Your task to perform on an android device: check the backup settings in the google photos Image 0: 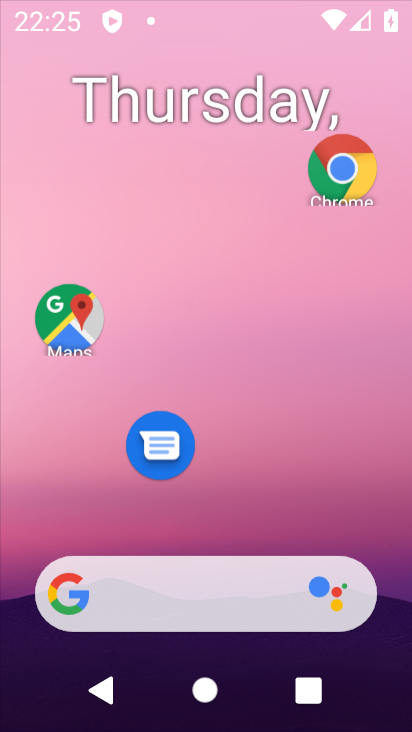
Step 0: click (301, 45)
Your task to perform on an android device: check the backup settings in the google photos Image 1: 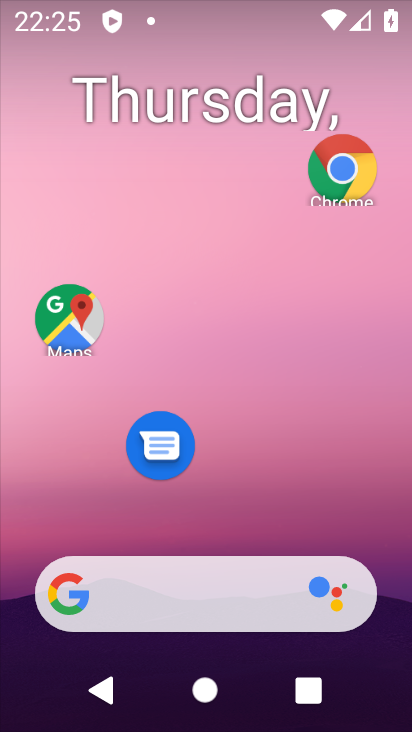
Step 1: drag from (229, 528) to (230, 65)
Your task to perform on an android device: check the backup settings in the google photos Image 2: 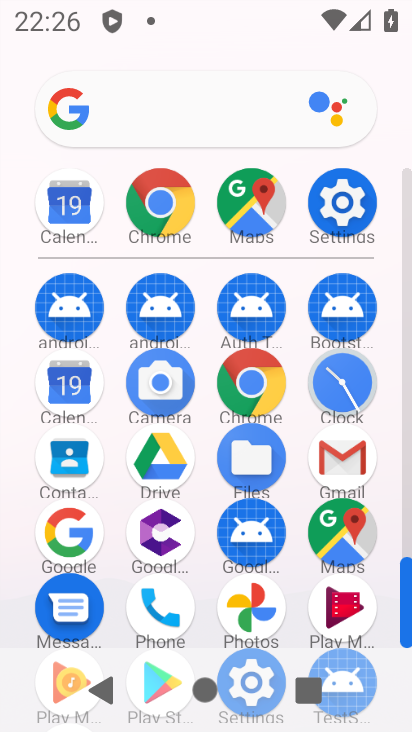
Step 2: click (252, 593)
Your task to perform on an android device: check the backup settings in the google photos Image 3: 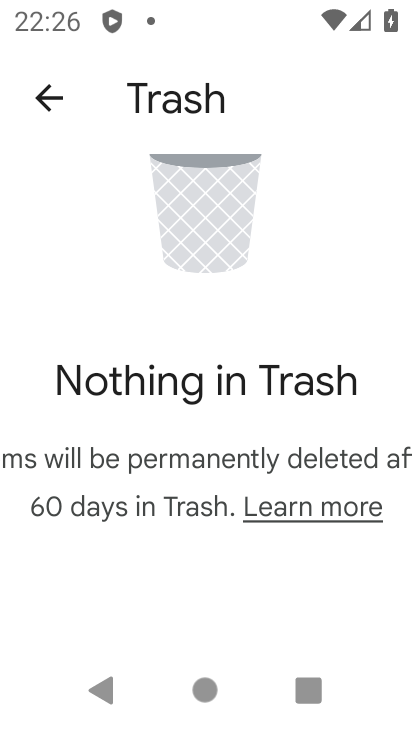
Step 3: click (49, 81)
Your task to perform on an android device: check the backup settings in the google photos Image 4: 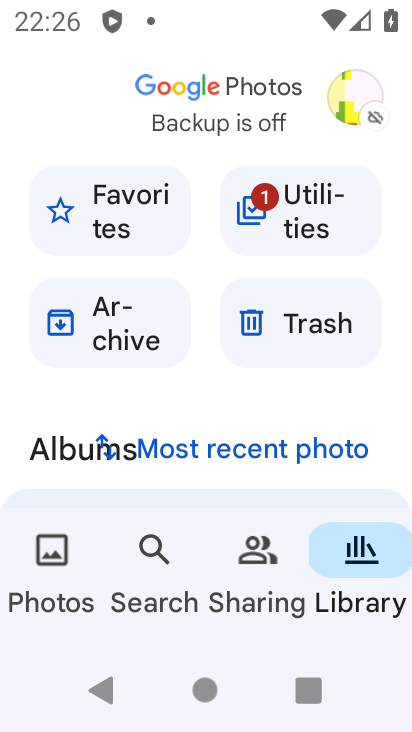
Step 4: click (347, 89)
Your task to perform on an android device: check the backup settings in the google photos Image 5: 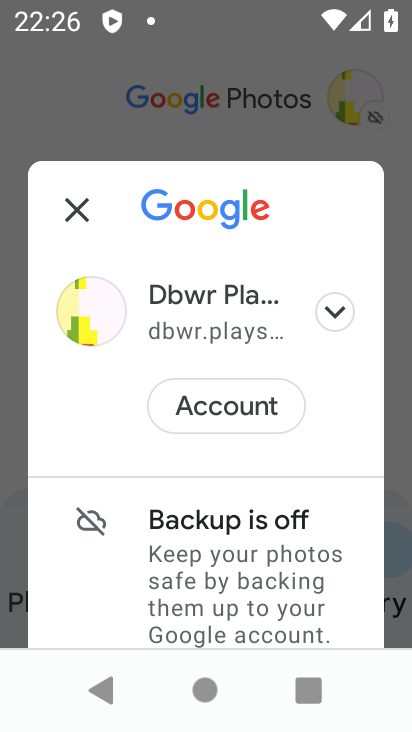
Step 5: drag from (225, 523) to (228, 59)
Your task to perform on an android device: check the backup settings in the google photos Image 6: 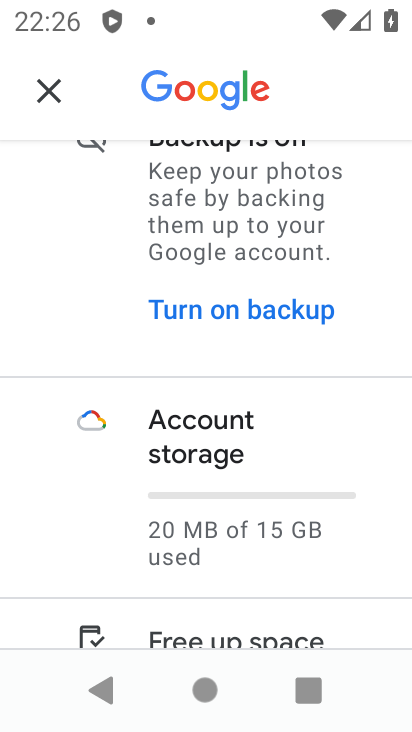
Step 6: drag from (253, 617) to (268, 182)
Your task to perform on an android device: check the backup settings in the google photos Image 7: 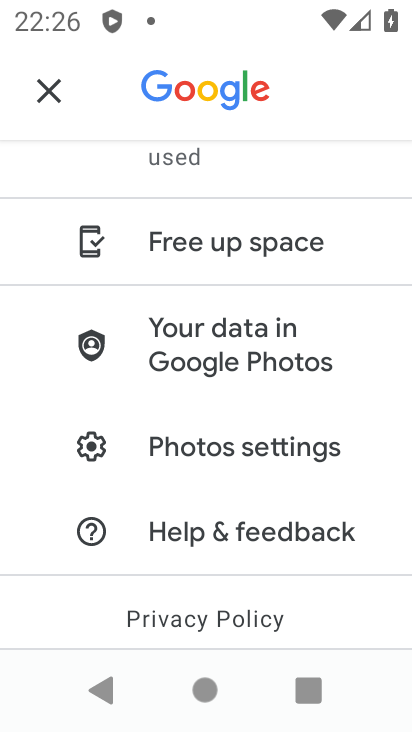
Step 7: click (236, 438)
Your task to perform on an android device: check the backup settings in the google photos Image 8: 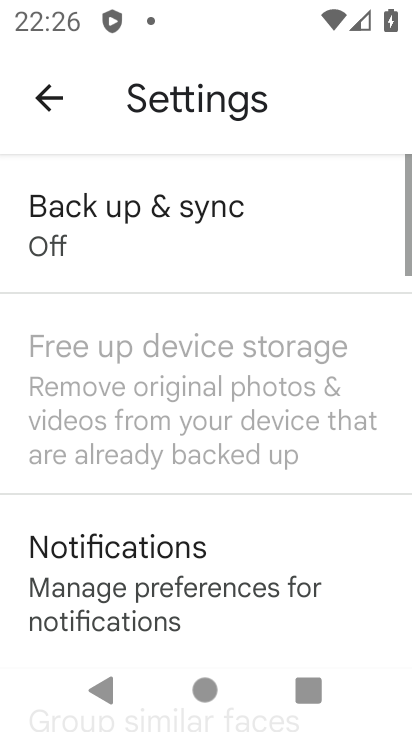
Step 8: drag from (247, 520) to (326, 112)
Your task to perform on an android device: check the backup settings in the google photos Image 9: 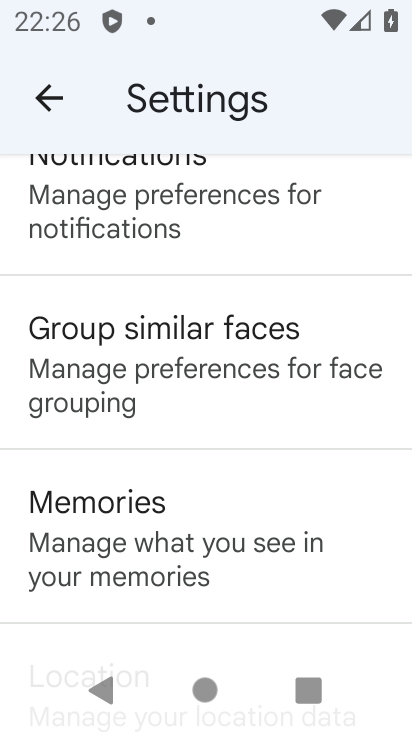
Step 9: drag from (136, 189) to (226, 699)
Your task to perform on an android device: check the backup settings in the google photos Image 10: 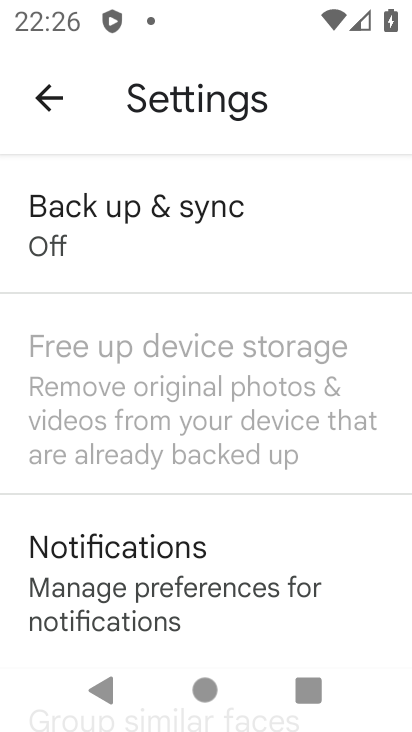
Step 10: click (189, 225)
Your task to perform on an android device: check the backup settings in the google photos Image 11: 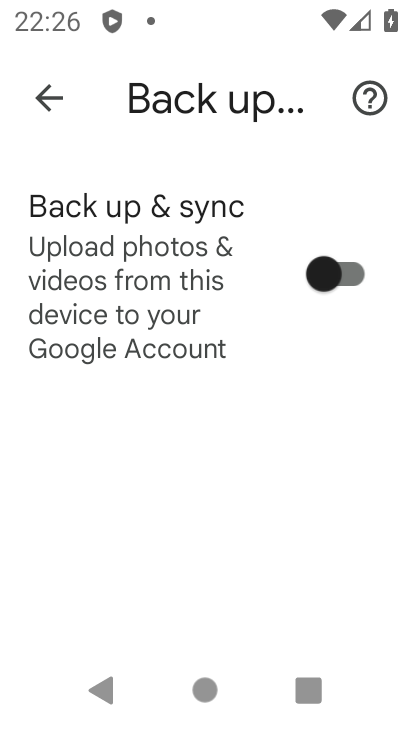
Step 11: drag from (212, 566) to (265, 175)
Your task to perform on an android device: check the backup settings in the google photos Image 12: 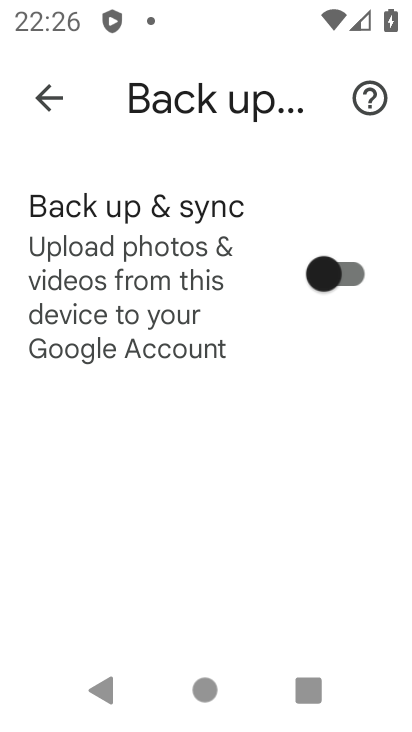
Step 12: click (330, 260)
Your task to perform on an android device: check the backup settings in the google photos Image 13: 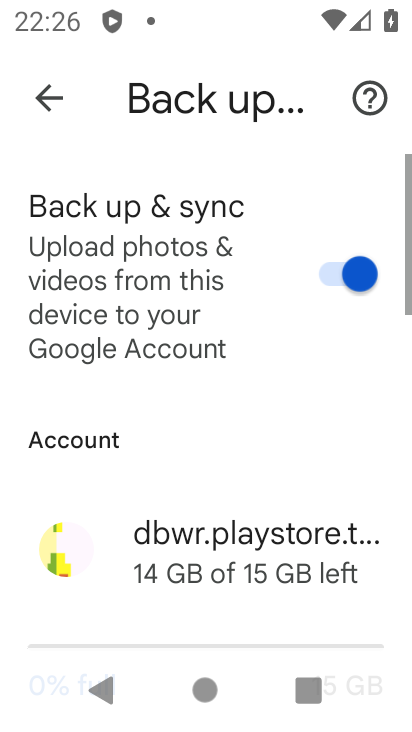
Step 13: task complete